Your task to perform on an android device: When is my next meeting? Image 0: 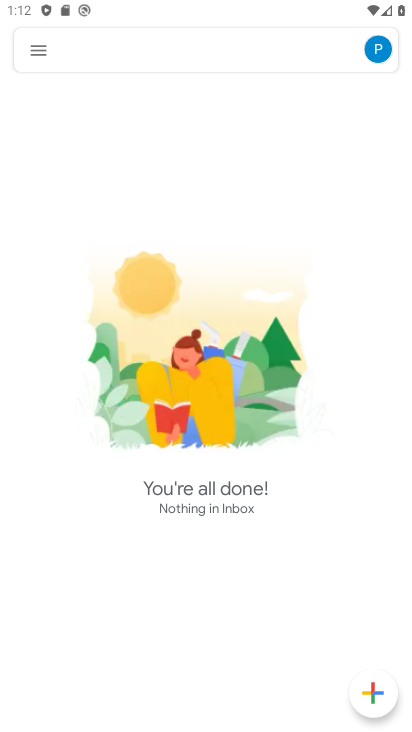
Step 0: press home button
Your task to perform on an android device: When is my next meeting? Image 1: 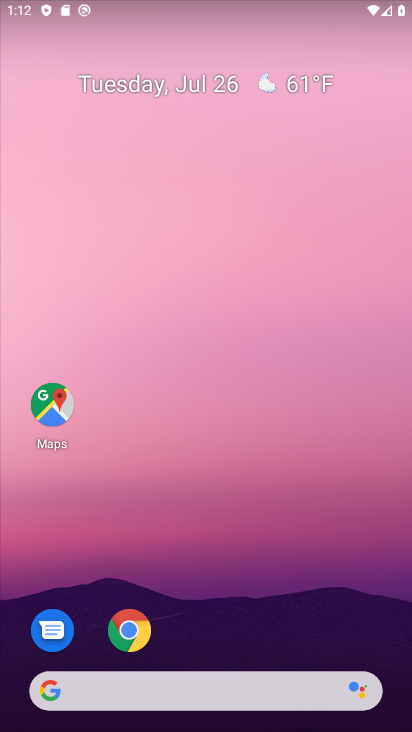
Step 1: drag from (253, 630) to (253, 55)
Your task to perform on an android device: When is my next meeting? Image 2: 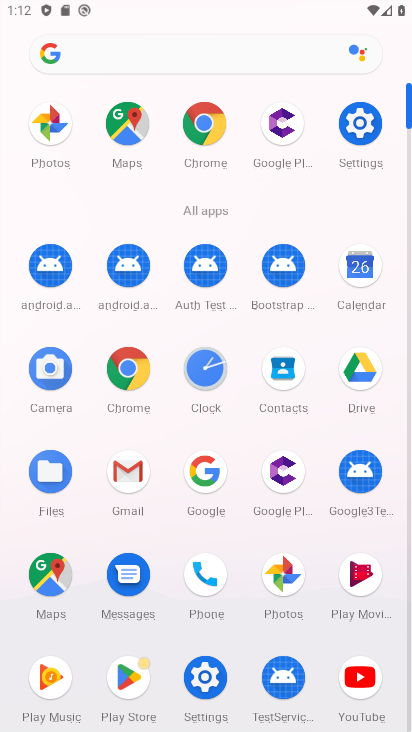
Step 2: click (359, 269)
Your task to perform on an android device: When is my next meeting? Image 3: 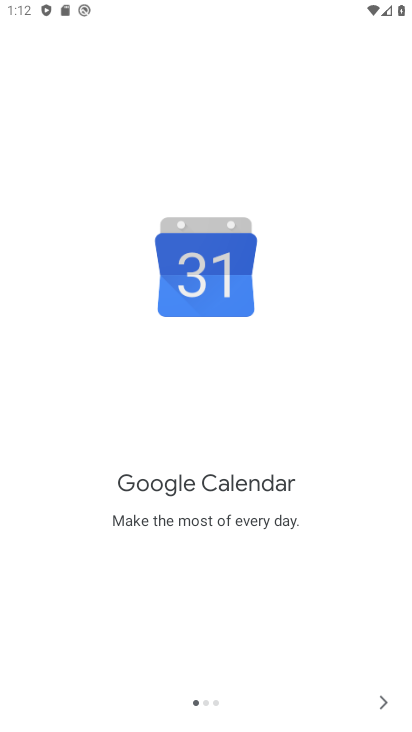
Step 3: click (381, 698)
Your task to perform on an android device: When is my next meeting? Image 4: 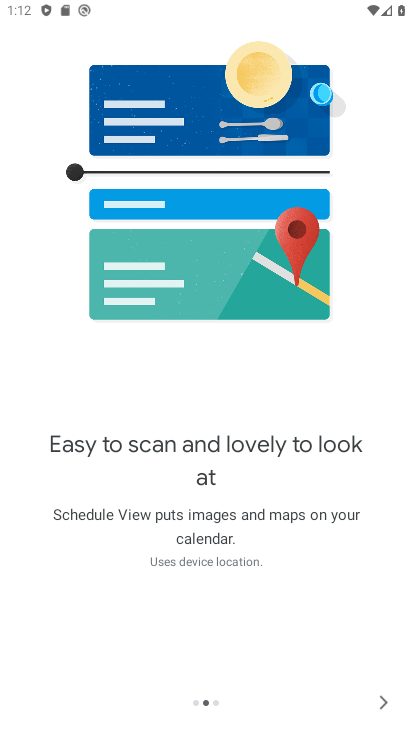
Step 4: click (382, 704)
Your task to perform on an android device: When is my next meeting? Image 5: 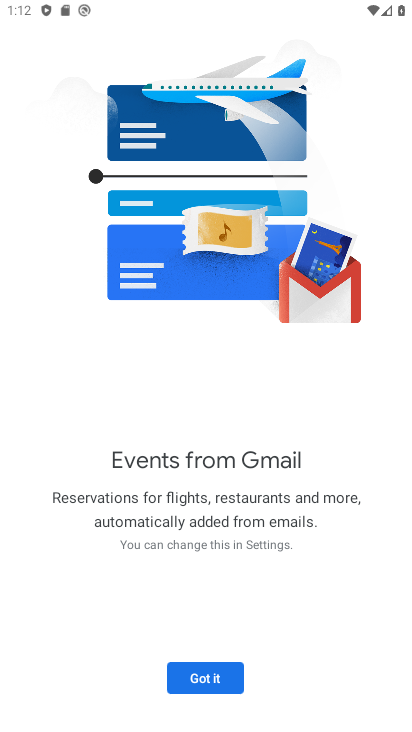
Step 5: click (214, 680)
Your task to perform on an android device: When is my next meeting? Image 6: 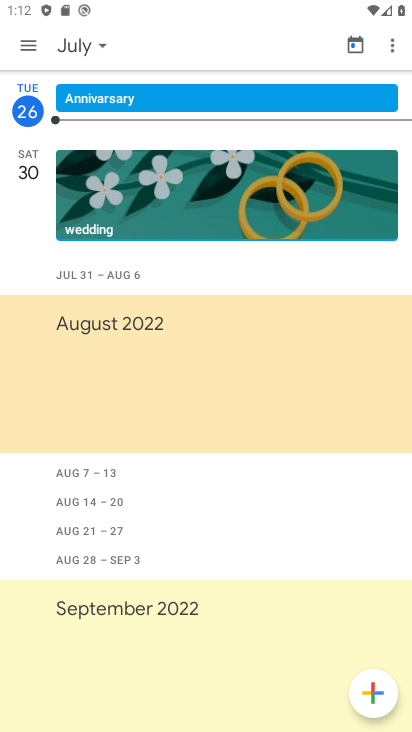
Step 6: click (72, 53)
Your task to perform on an android device: When is my next meeting? Image 7: 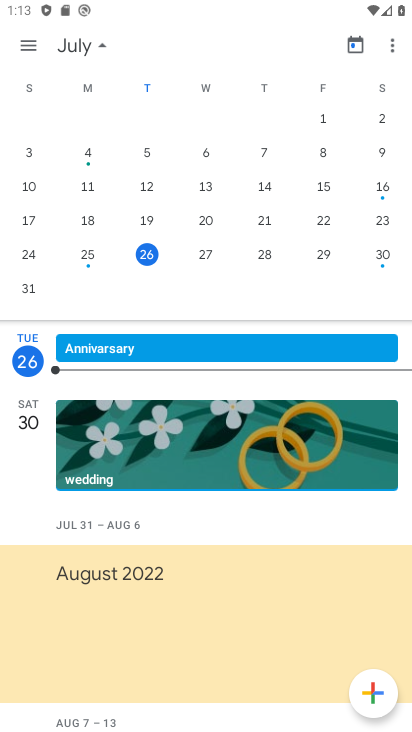
Step 7: click (143, 267)
Your task to perform on an android device: When is my next meeting? Image 8: 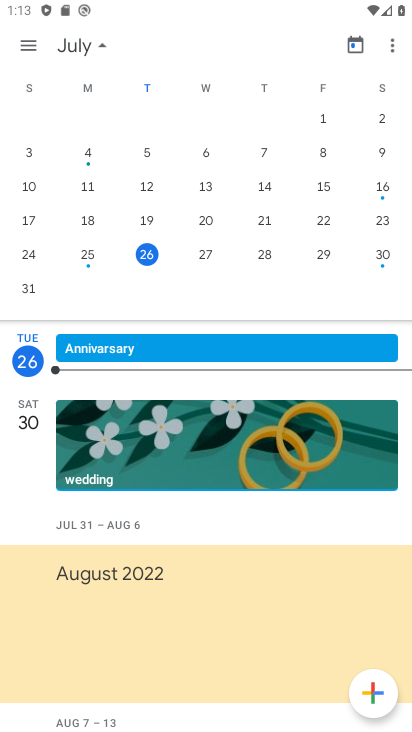
Step 8: click (143, 255)
Your task to perform on an android device: When is my next meeting? Image 9: 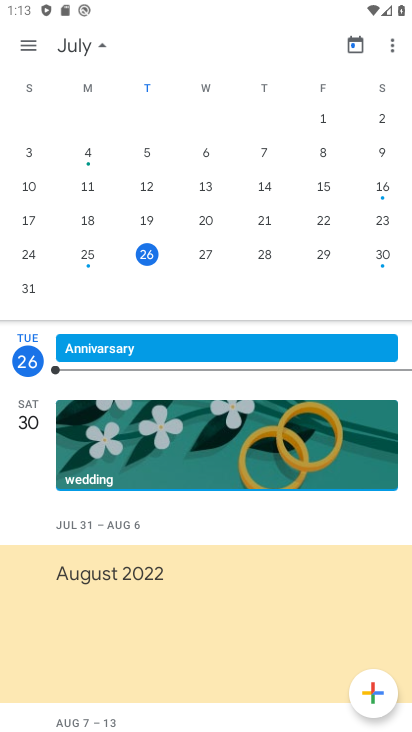
Step 9: task complete